Your task to perform on an android device: open a new tab in the chrome app Image 0: 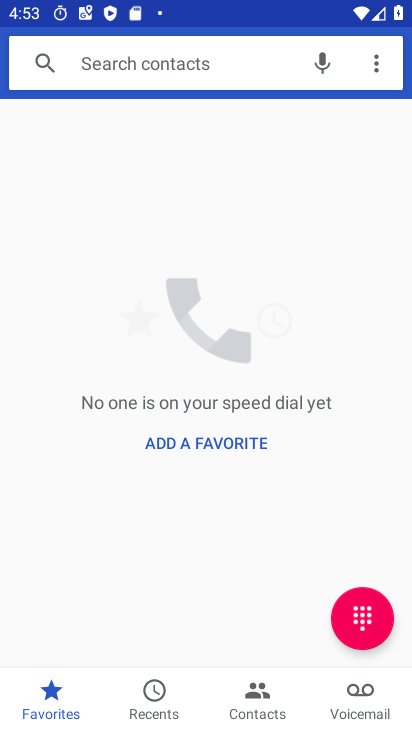
Step 0: drag from (220, 620) to (237, 505)
Your task to perform on an android device: open a new tab in the chrome app Image 1: 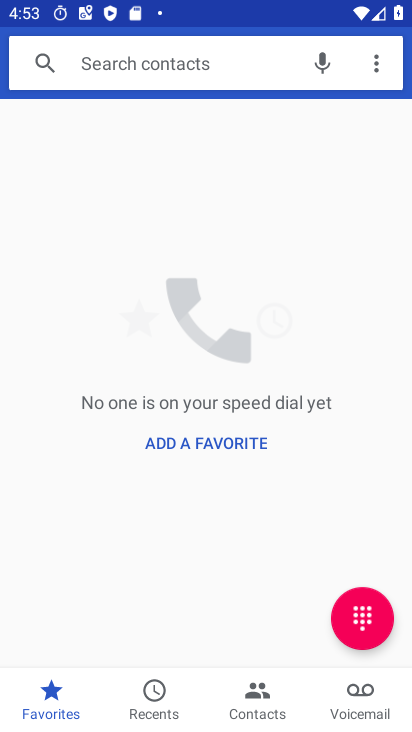
Step 1: press home button
Your task to perform on an android device: open a new tab in the chrome app Image 2: 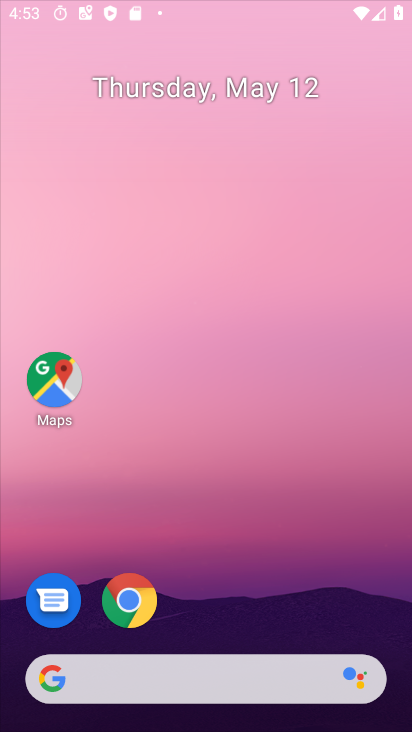
Step 2: drag from (250, 665) to (349, 278)
Your task to perform on an android device: open a new tab in the chrome app Image 3: 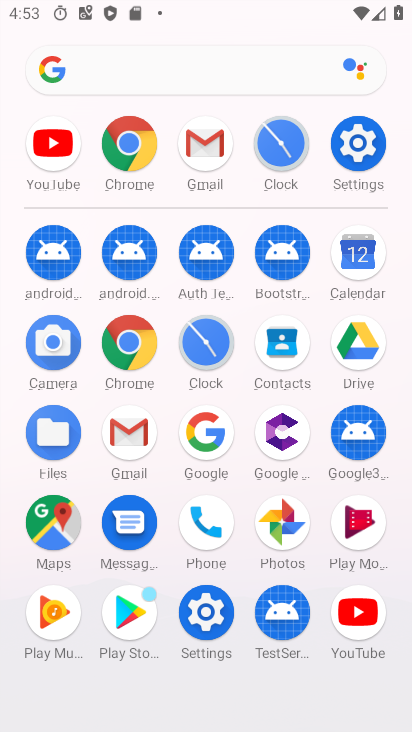
Step 3: click (134, 327)
Your task to perform on an android device: open a new tab in the chrome app Image 4: 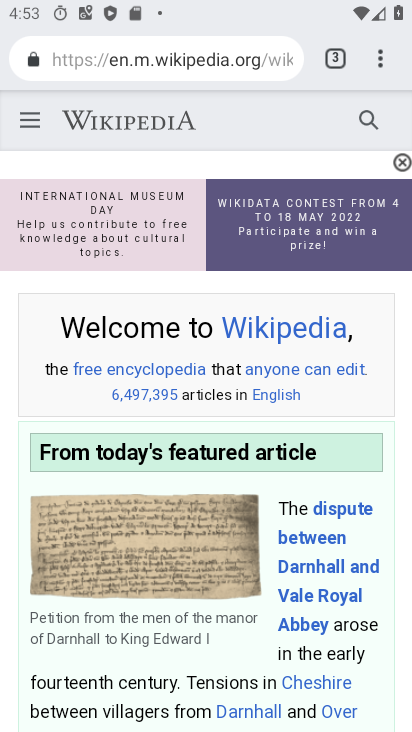
Step 4: click (350, 61)
Your task to perform on an android device: open a new tab in the chrome app Image 5: 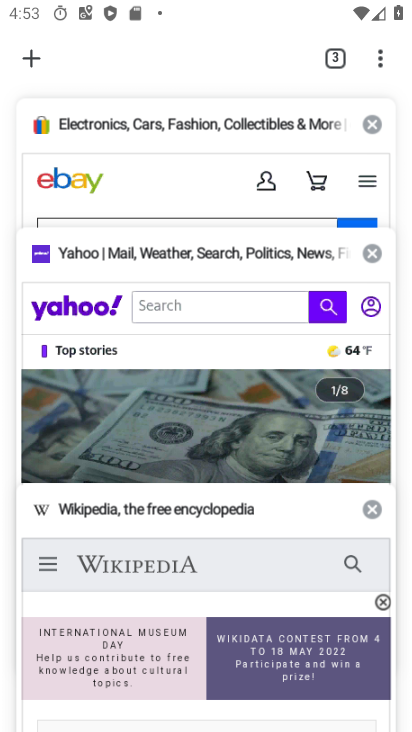
Step 5: click (34, 59)
Your task to perform on an android device: open a new tab in the chrome app Image 6: 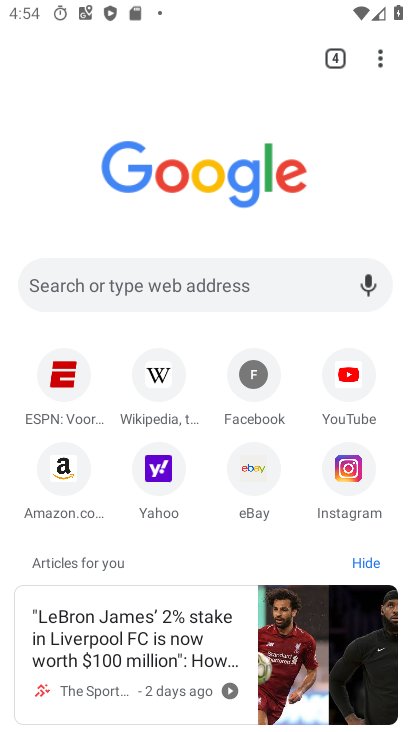
Step 6: task complete